Your task to perform on an android device: Open the map Image 0: 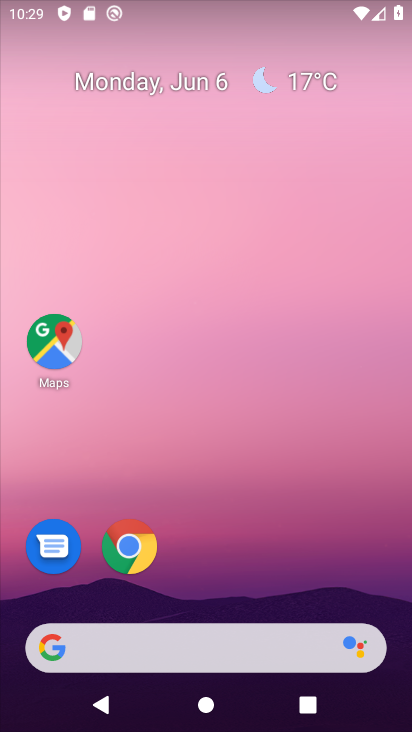
Step 0: click (58, 343)
Your task to perform on an android device: Open the map Image 1: 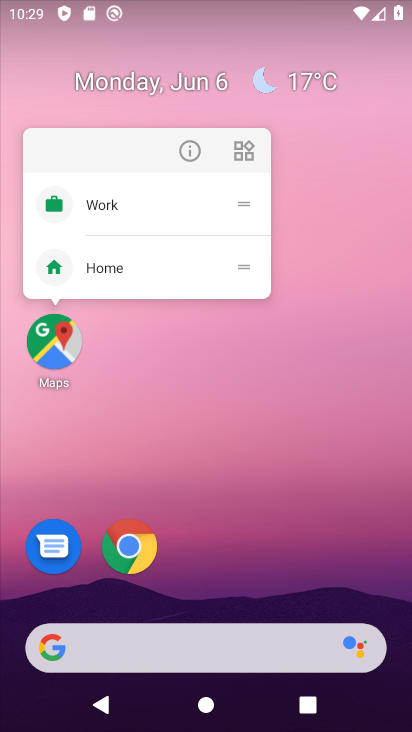
Step 1: drag from (279, 531) to (260, 114)
Your task to perform on an android device: Open the map Image 2: 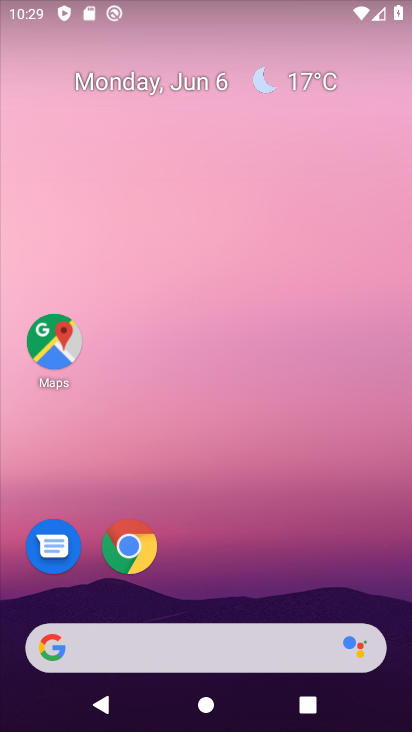
Step 2: drag from (254, 548) to (210, 123)
Your task to perform on an android device: Open the map Image 3: 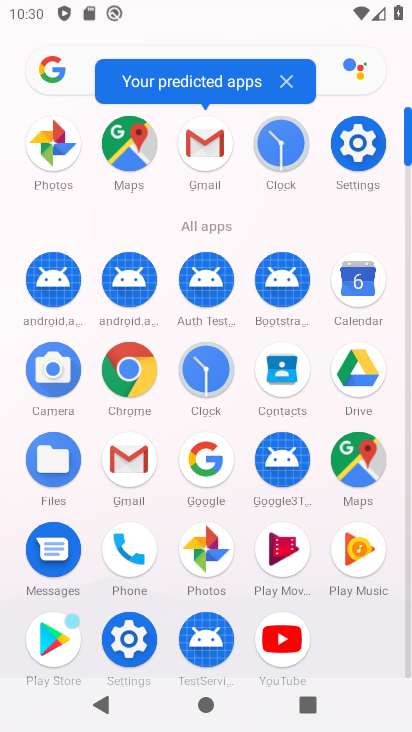
Step 3: click (356, 469)
Your task to perform on an android device: Open the map Image 4: 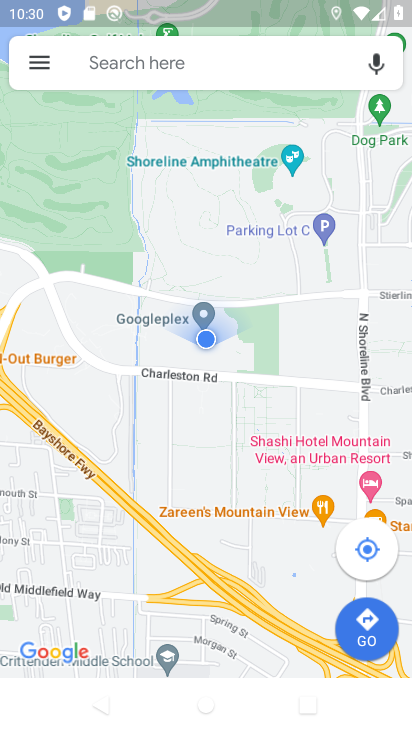
Step 4: task complete